Your task to perform on an android device: Search for the new Nintendo switch on Best Buy Image 0: 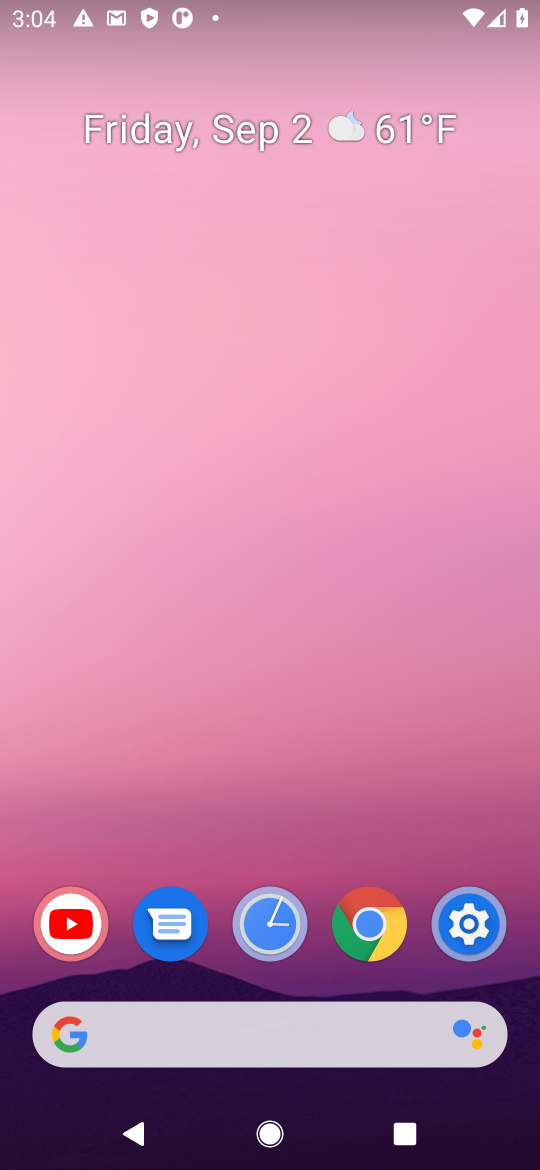
Step 0: press home button
Your task to perform on an android device: Search for the new Nintendo switch on Best Buy Image 1: 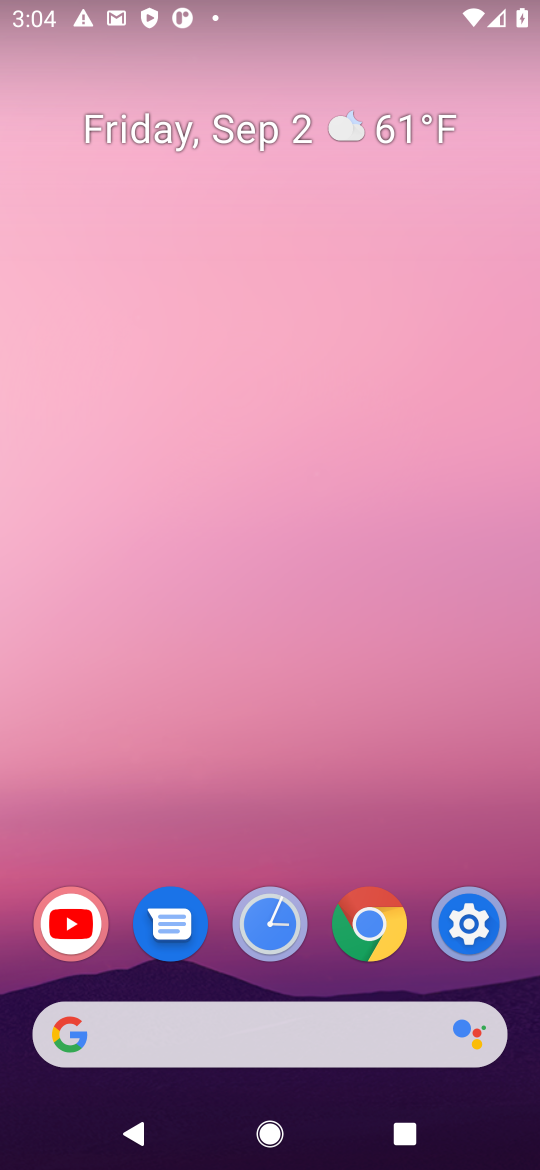
Step 1: click (412, 1031)
Your task to perform on an android device: Search for the new Nintendo switch on Best Buy Image 2: 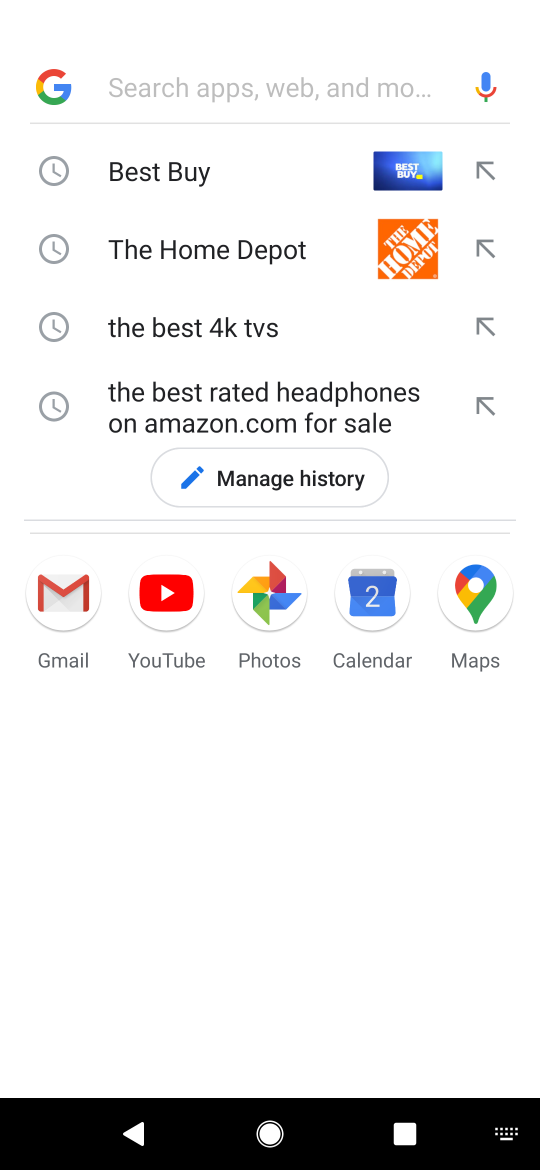
Step 2: press enter
Your task to perform on an android device: Search for the new Nintendo switch on Best Buy Image 3: 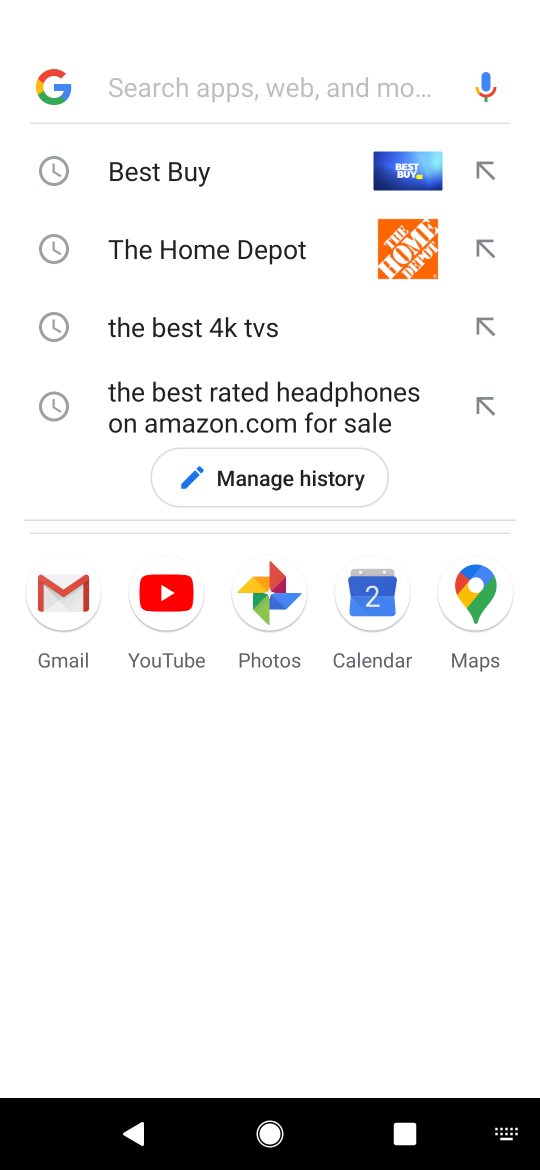
Step 3: type "best buy"
Your task to perform on an android device: Search for the new Nintendo switch on Best Buy Image 4: 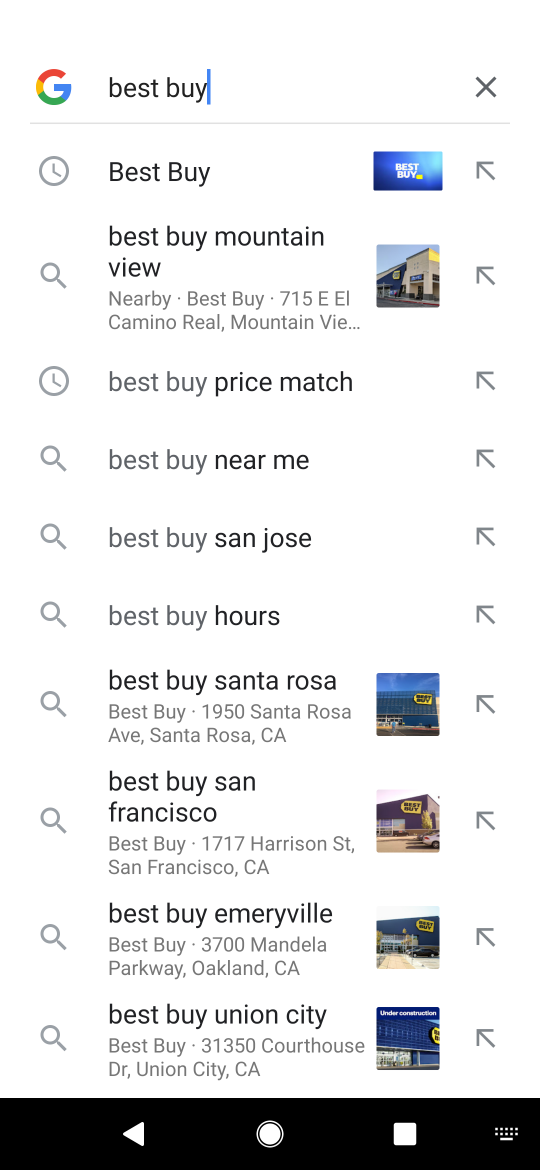
Step 4: click (203, 171)
Your task to perform on an android device: Search for the new Nintendo switch on Best Buy Image 5: 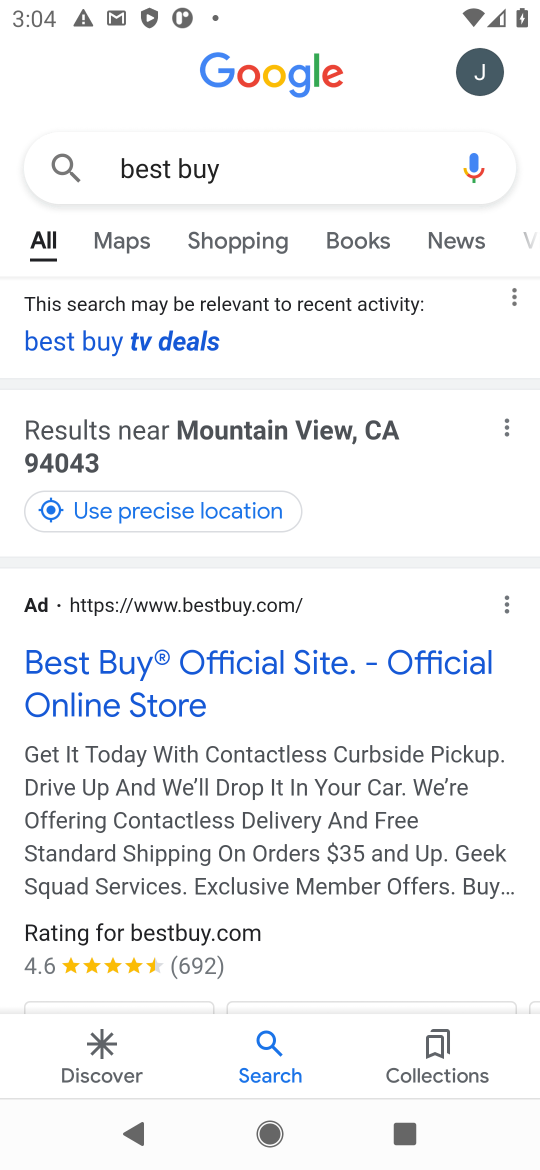
Step 5: click (273, 665)
Your task to perform on an android device: Search for the new Nintendo switch on Best Buy Image 6: 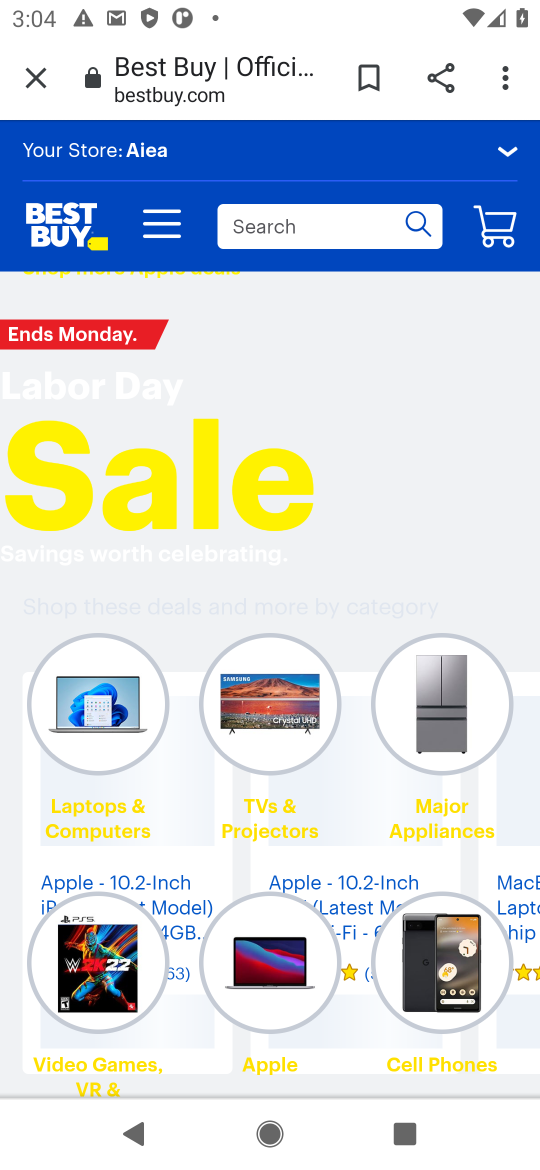
Step 6: click (308, 233)
Your task to perform on an android device: Search for the new Nintendo switch on Best Buy Image 7: 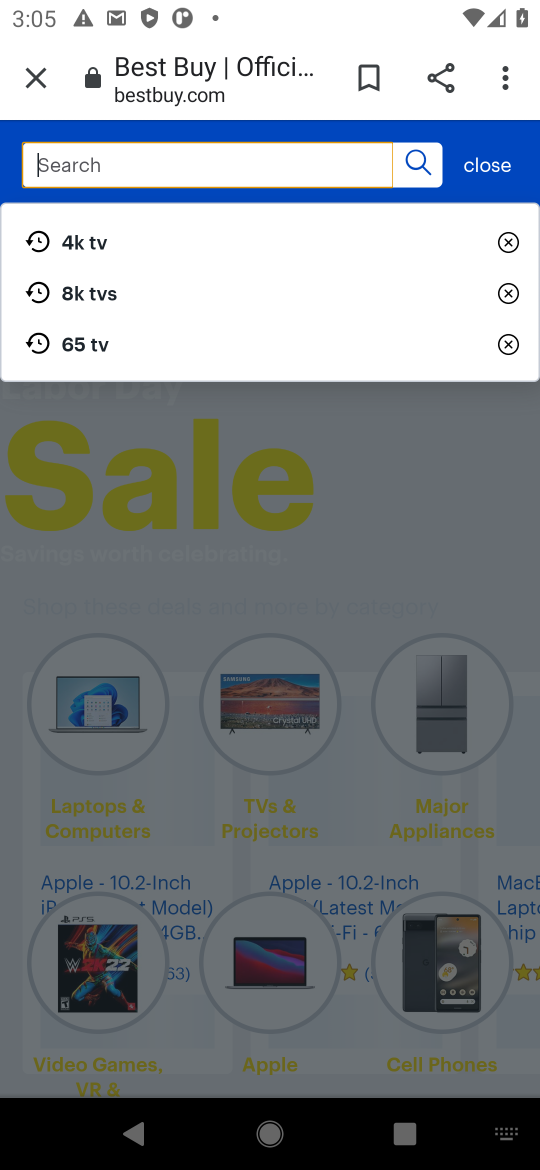
Step 7: press enter
Your task to perform on an android device: Search for the new Nintendo switch on Best Buy Image 8: 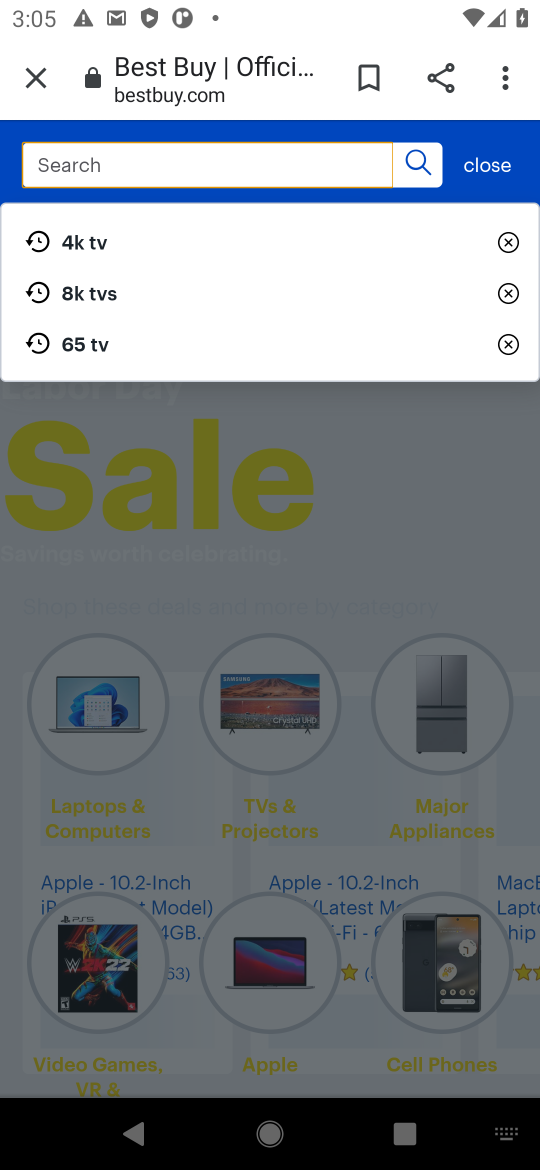
Step 8: type "nintendo switch"
Your task to perform on an android device: Search for the new Nintendo switch on Best Buy Image 9: 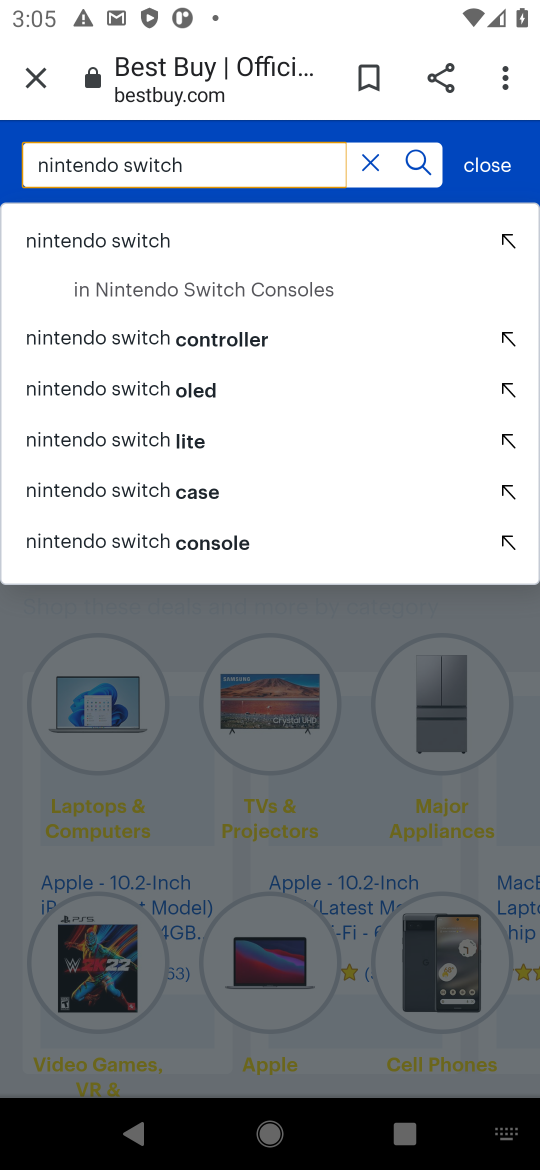
Step 9: click (110, 240)
Your task to perform on an android device: Search for the new Nintendo switch on Best Buy Image 10: 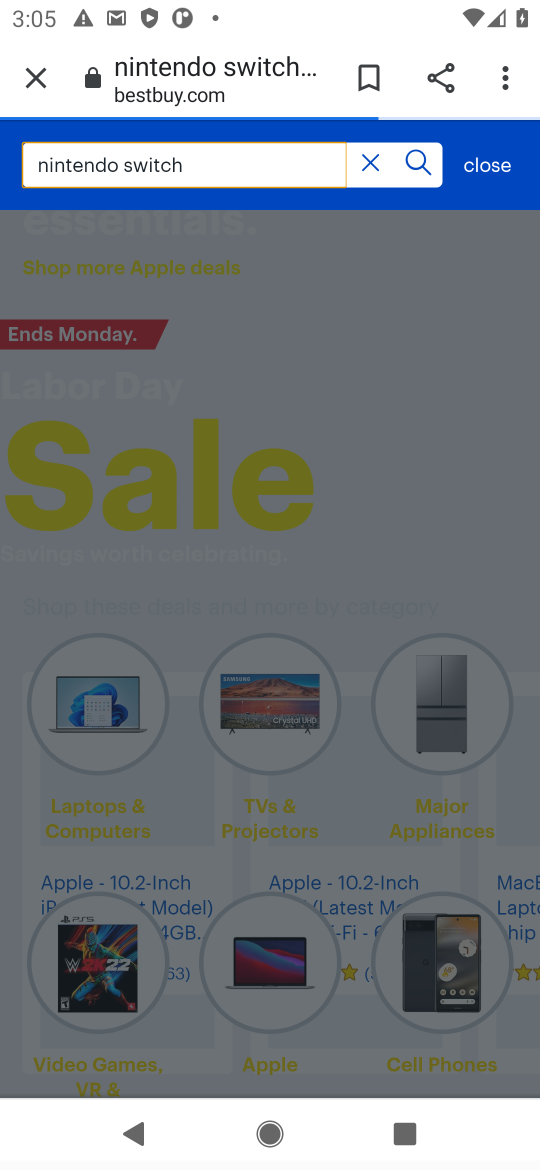
Step 10: click (423, 160)
Your task to perform on an android device: Search for the new Nintendo switch on Best Buy Image 11: 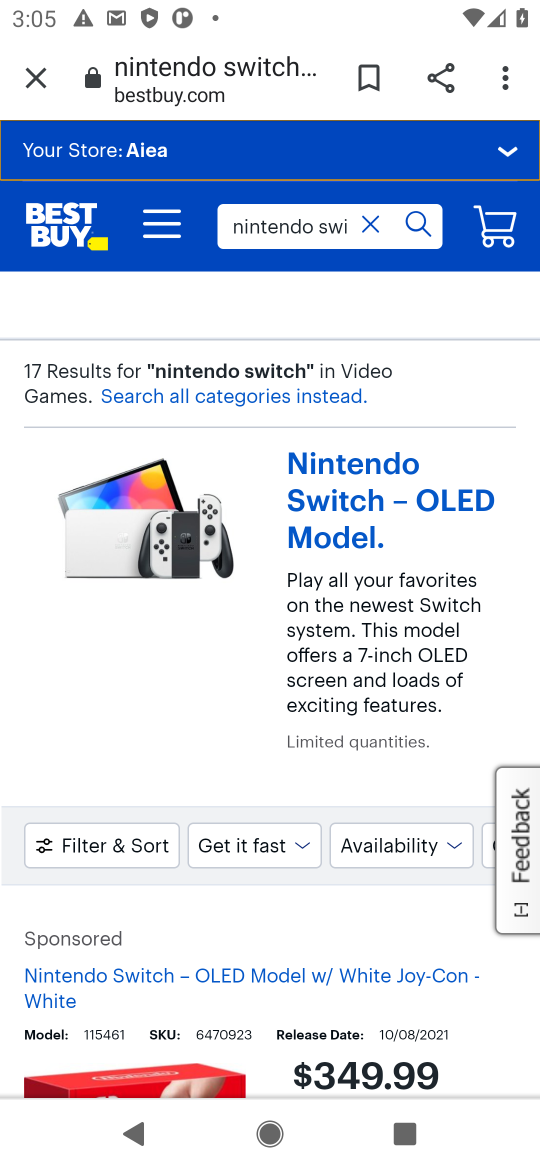
Step 11: task complete